Your task to perform on an android device: change your default location settings in chrome Image 0: 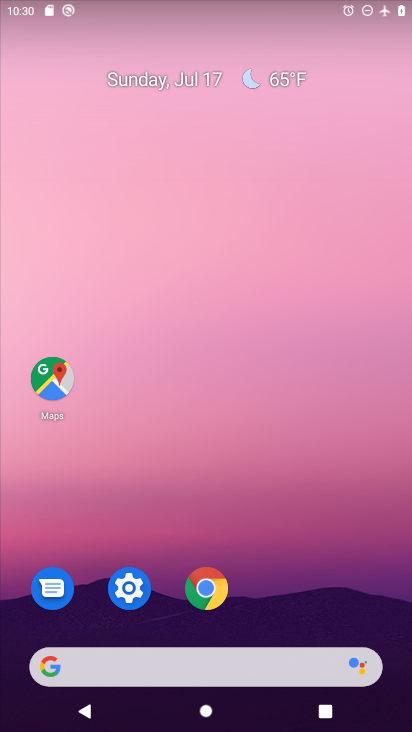
Step 0: drag from (261, 591) to (213, 111)
Your task to perform on an android device: change your default location settings in chrome Image 1: 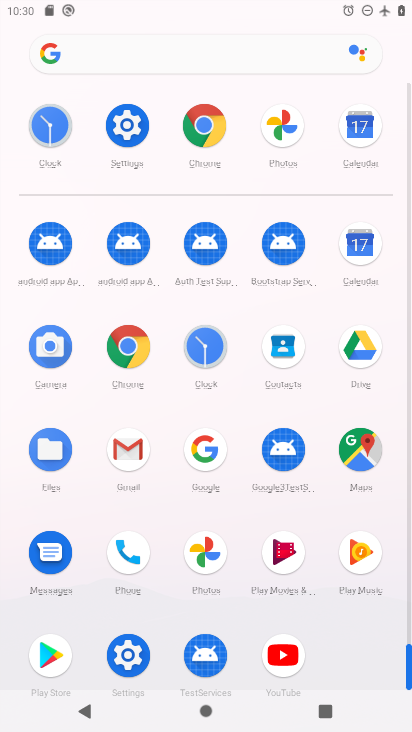
Step 1: click (199, 137)
Your task to perform on an android device: change your default location settings in chrome Image 2: 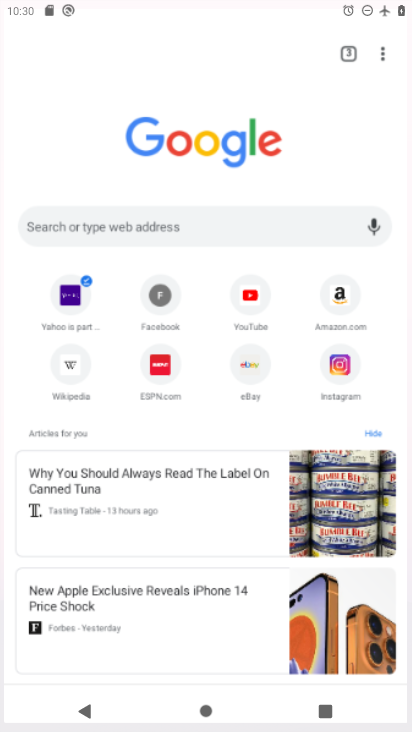
Step 2: click (203, 134)
Your task to perform on an android device: change your default location settings in chrome Image 3: 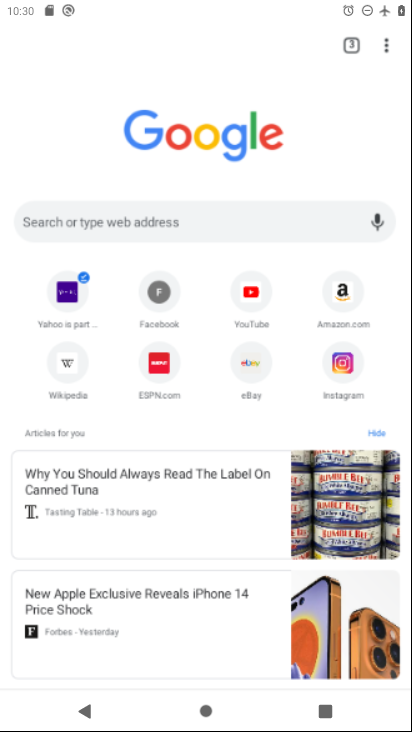
Step 3: click (206, 132)
Your task to perform on an android device: change your default location settings in chrome Image 4: 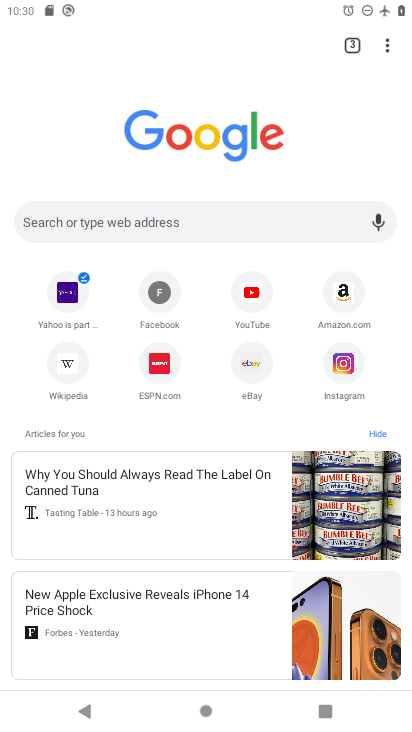
Step 4: drag from (377, 46) to (199, 394)
Your task to perform on an android device: change your default location settings in chrome Image 5: 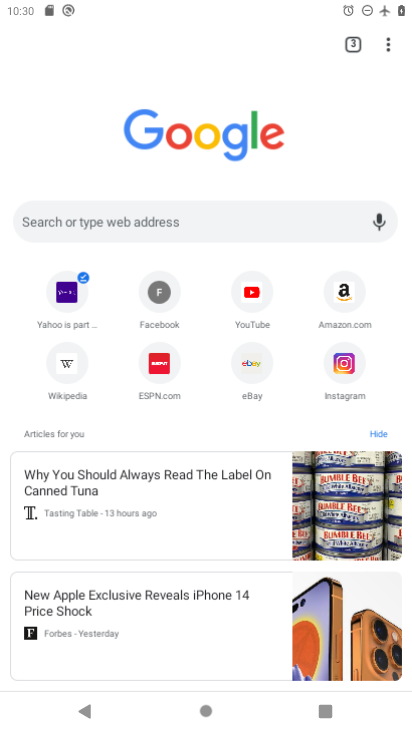
Step 5: click (213, 393)
Your task to perform on an android device: change your default location settings in chrome Image 6: 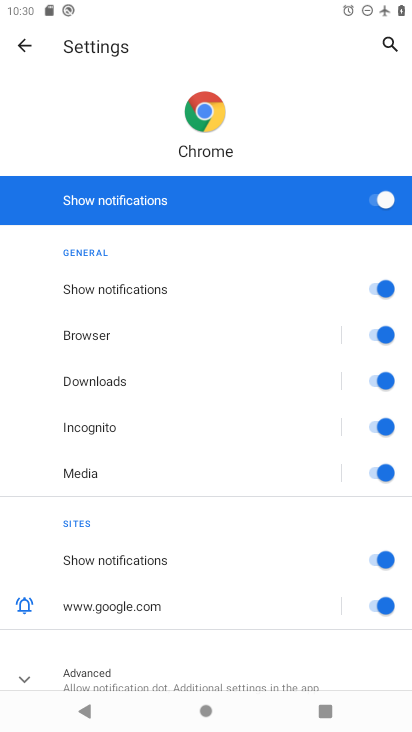
Step 6: click (25, 50)
Your task to perform on an android device: change your default location settings in chrome Image 7: 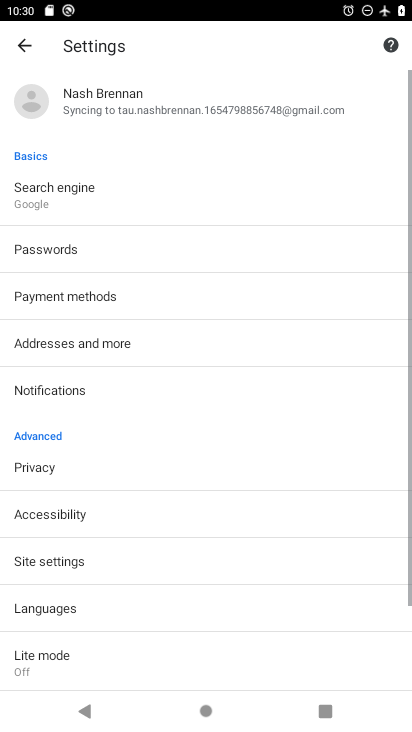
Step 7: drag from (157, 549) to (173, 148)
Your task to perform on an android device: change your default location settings in chrome Image 8: 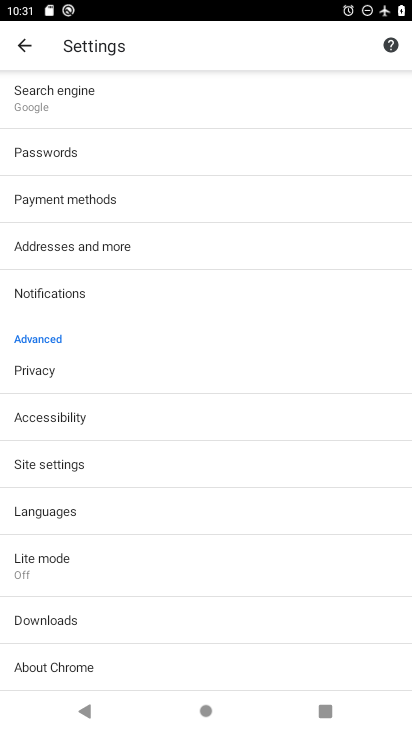
Step 8: drag from (106, 543) to (70, 168)
Your task to perform on an android device: change your default location settings in chrome Image 9: 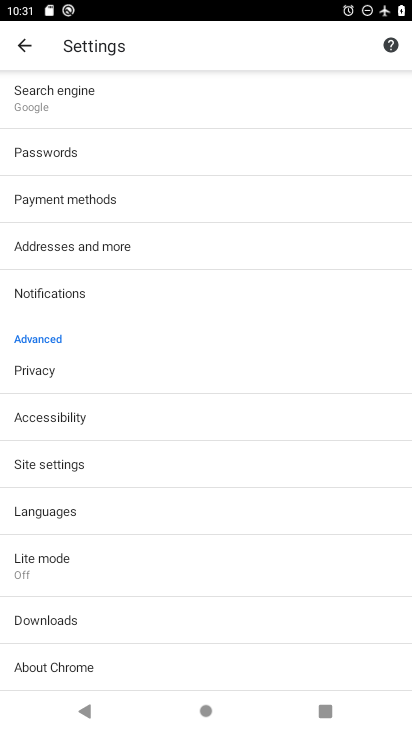
Step 9: click (41, 466)
Your task to perform on an android device: change your default location settings in chrome Image 10: 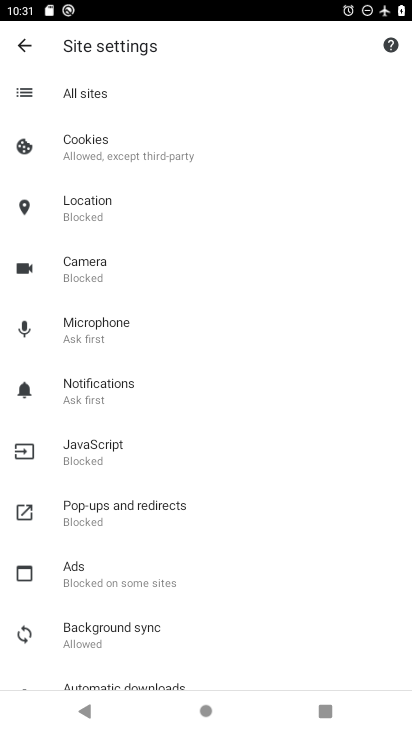
Step 10: click (89, 203)
Your task to perform on an android device: change your default location settings in chrome Image 11: 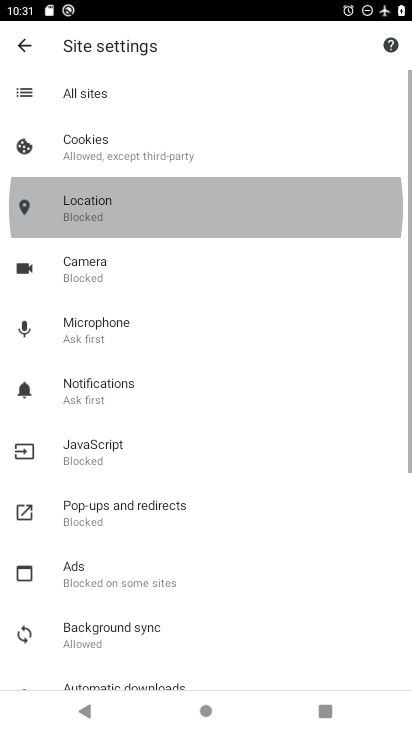
Step 11: click (88, 204)
Your task to perform on an android device: change your default location settings in chrome Image 12: 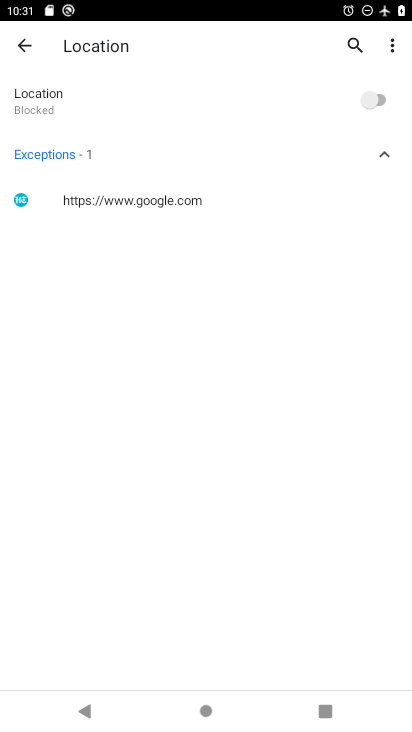
Step 12: click (370, 100)
Your task to perform on an android device: change your default location settings in chrome Image 13: 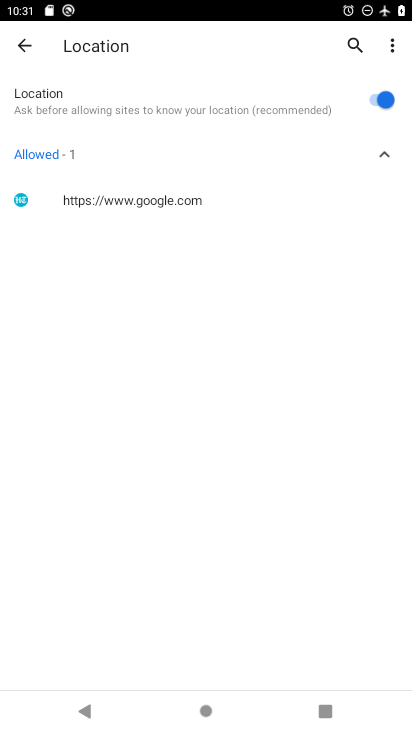
Step 13: task complete